Your task to perform on an android device: What's the weather? Image 0: 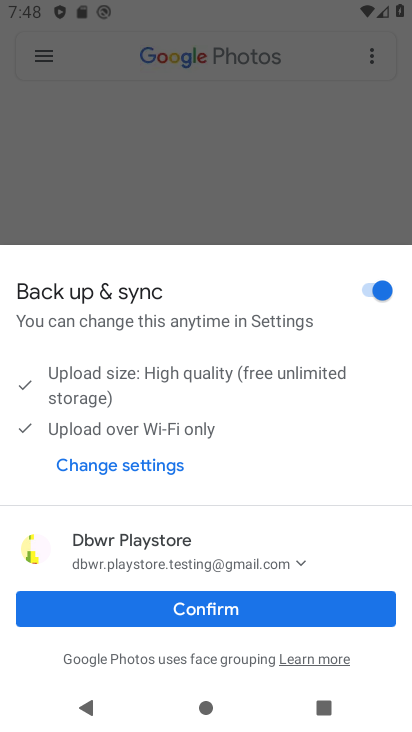
Step 0: press home button
Your task to perform on an android device: What's the weather? Image 1: 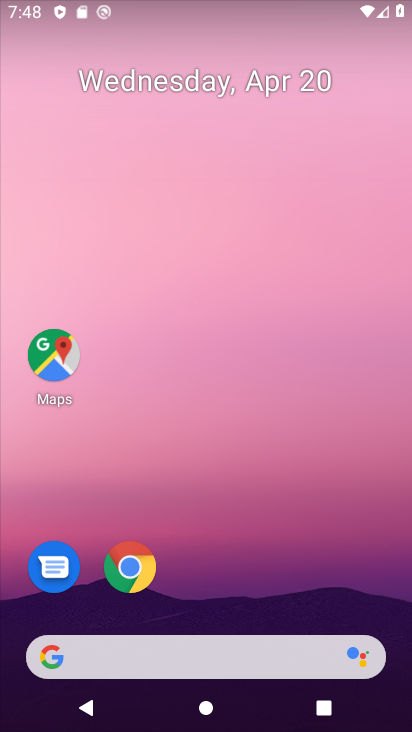
Step 1: drag from (314, 493) to (340, 429)
Your task to perform on an android device: What's the weather? Image 2: 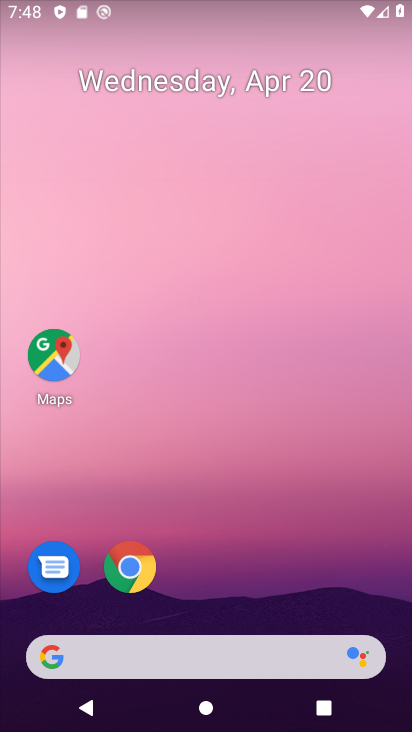
Step 2: drag from (13, 202) to (395, 220)
Your task to perform on an android device: What's the weather? Image 3: 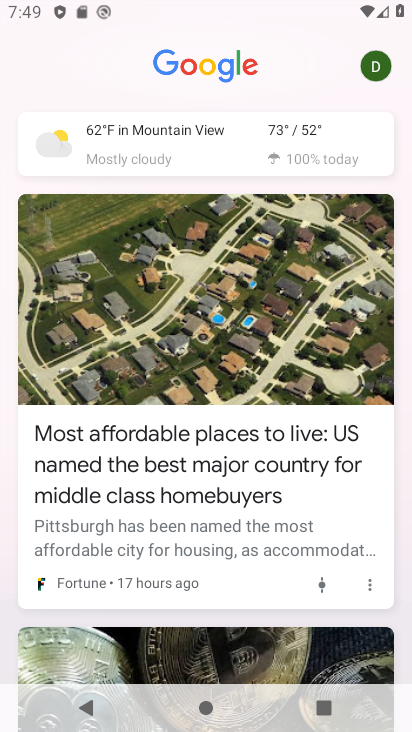
Step 3: click (219, 138)
Your task to perform on an android device: What's the weather? Image 4: 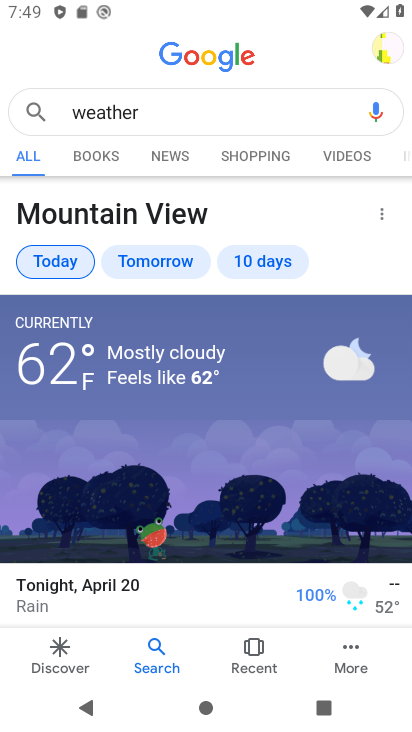
Step 4: task complete